Your task to perform on an android device: What is the recent news? Image 0: 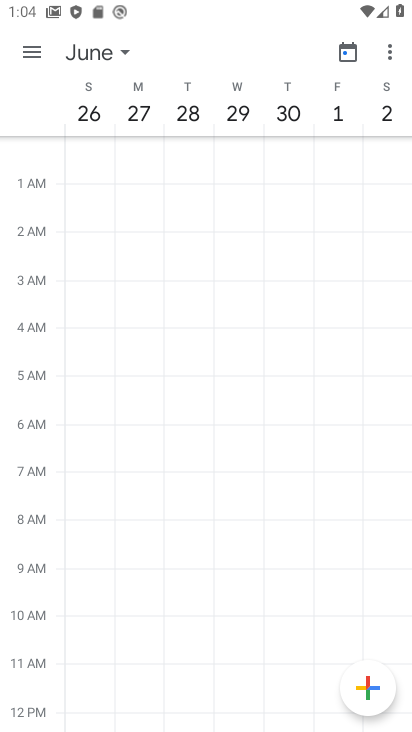
Step 0: press home button
Your task to perform on an android device: What is the recent news? Image 1: 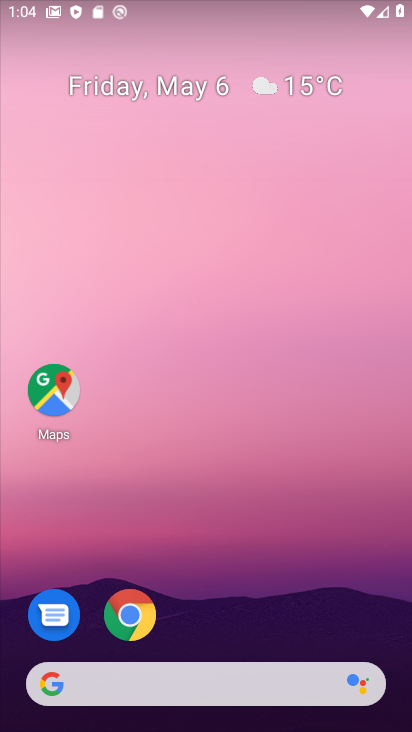
Step 1: click (102, 677)
Your task to perform on an android device: What is the recent news? Image 2: 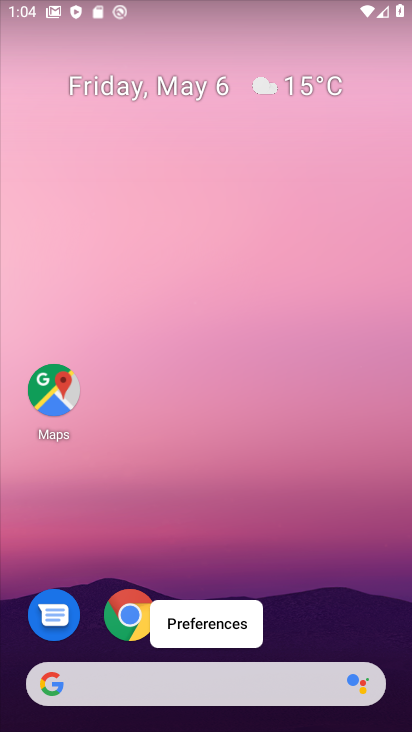
Step 2: click (173, 687)
Your task to perform on an android device: What is the recent news? Image 3: 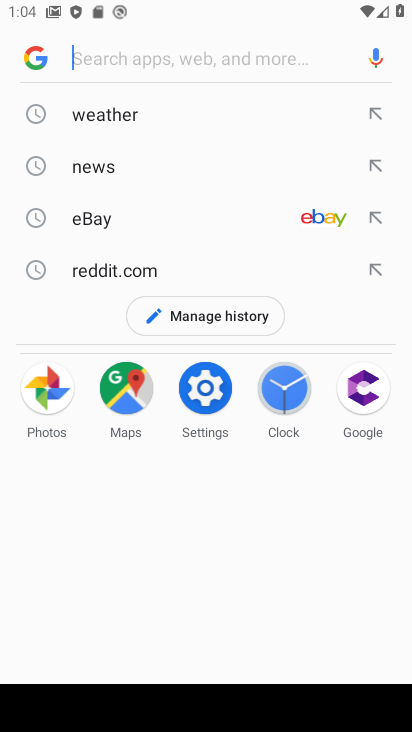
Step 3: click (92, 164)
Your task to perform on an android device: What is the recent news? Image 4: 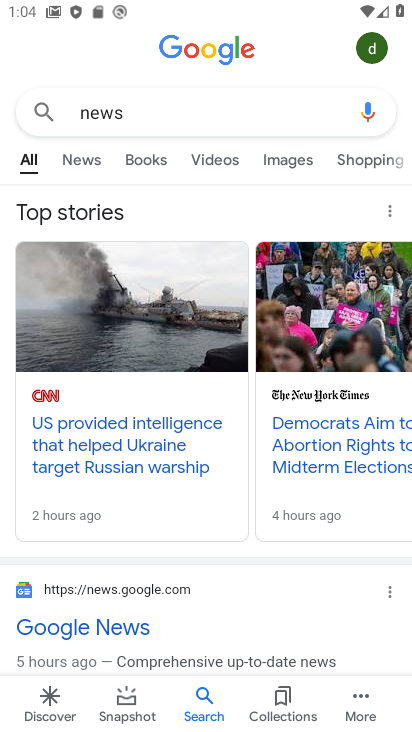
Step 4: click (85, 151)
Your task to perform on an android device: What is the recent news? Image 5: 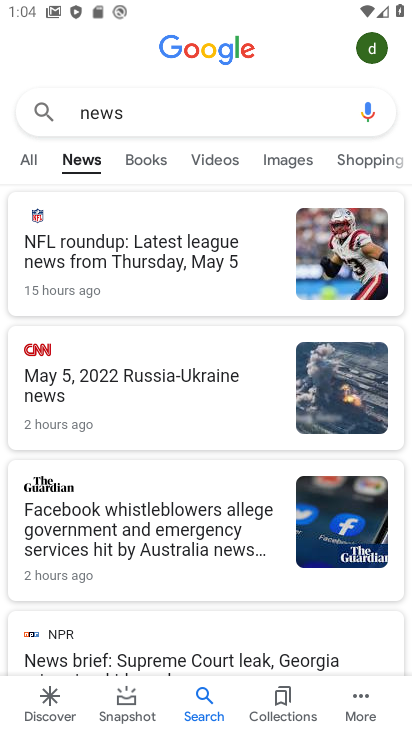
Step 5: task complete